Your task to perform on an android device: toggle data saver in the chrome app Image 0: 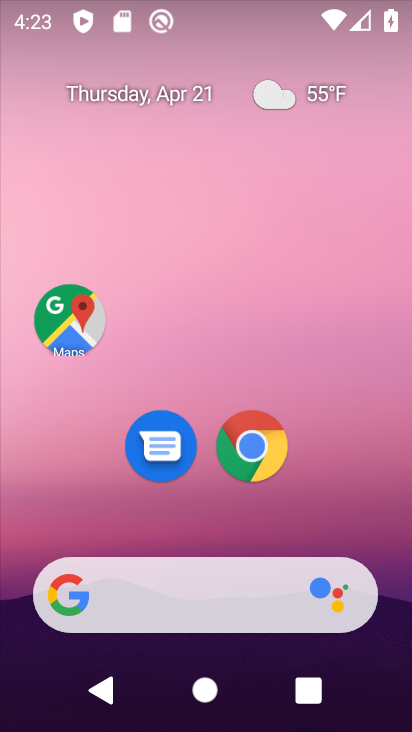
Step 0: click (257, 452)
Your task to perform on an android device: toggle data saver in the chrome app Image 1: 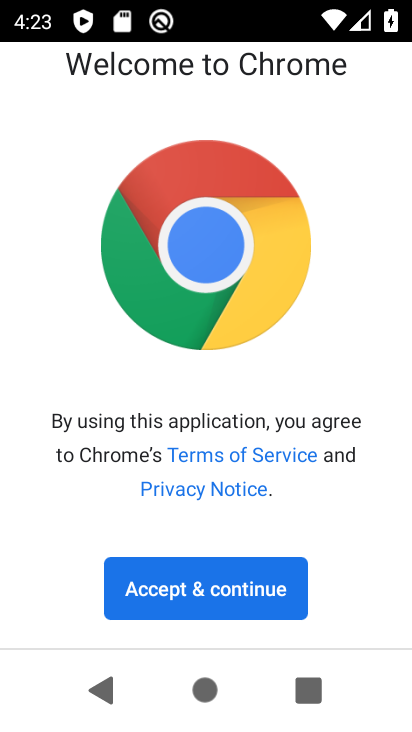
Step 1: click (231, 573)
Your task to perform on an android device: toggle data saver in the chrome app Image 2: 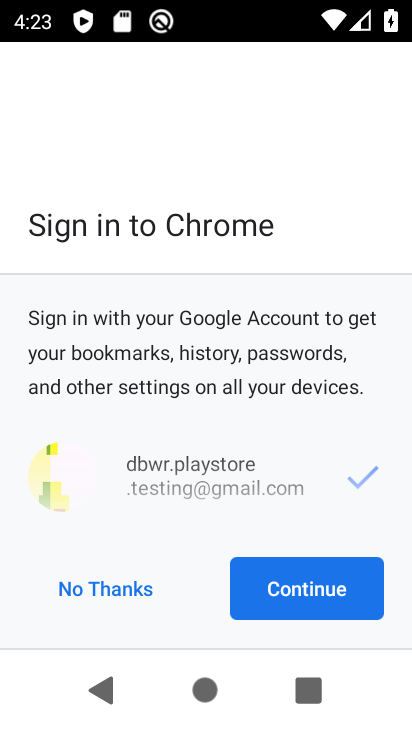
Step 2: click (299, 596)
Your task to perform on an android device: toggle data saver in the chrome app Image 3: 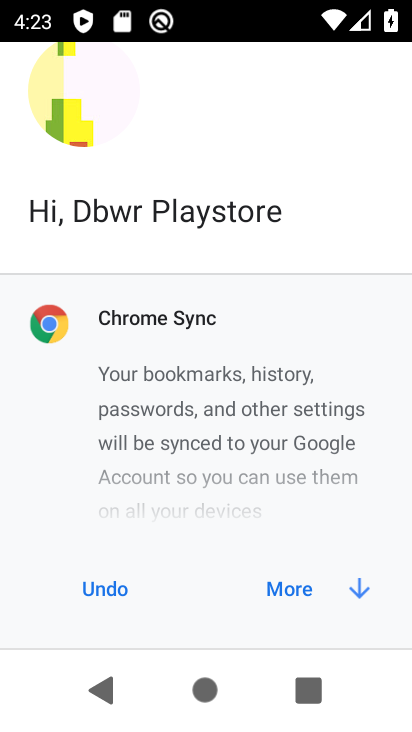
Step 3: click (299, 596)
Your task to perform on an android device: toggle data saver in the chrome app Image 4: 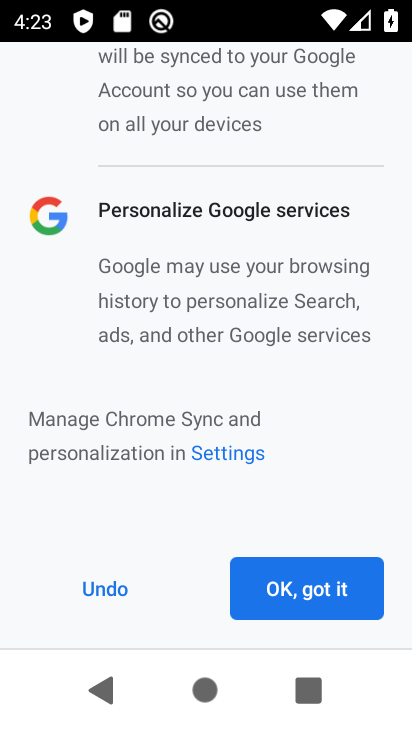
Step 4: click (299, 596)
Your task to perform on an android device: toggle data saver in the chrome app Image 5: 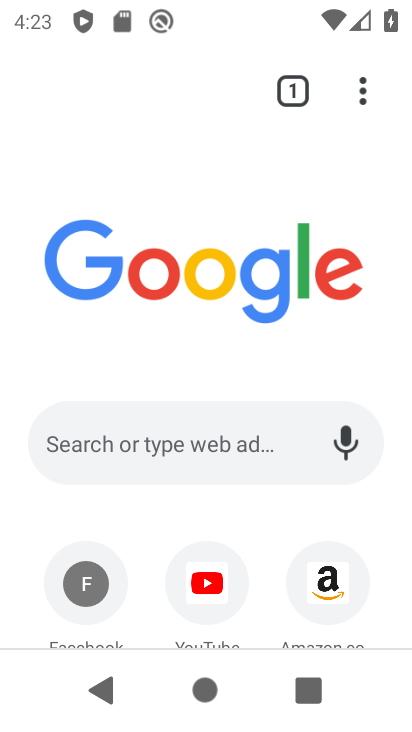
Step 5: click (359, 90)
Your task to perform on an android device: toggle data saver in the chrome app Image 6: 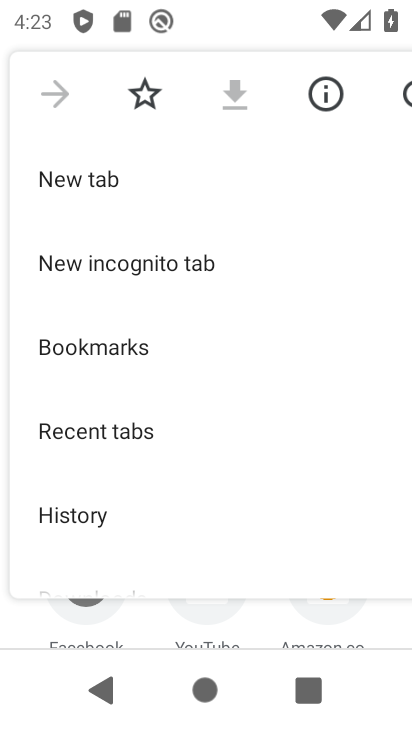
Step 6: drag from (142, 498) to (188, 304)
Your task to perform on an android device: toggle data saver in the chrome app Image 7: 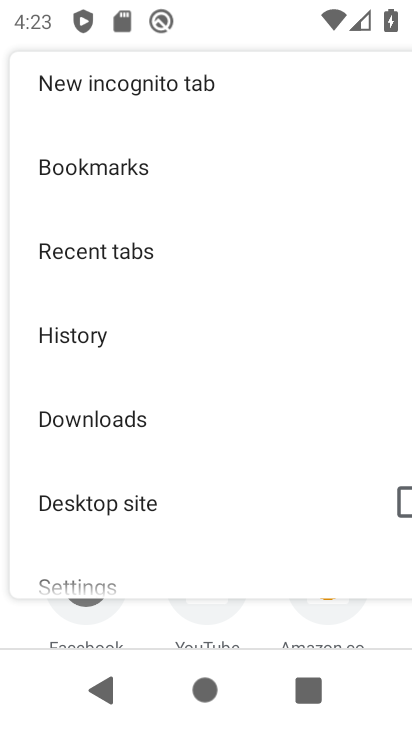
Step 7: drag from (105, 563) to (123, 309)
Your task to perform on an android device: toggle data saver in the chrome app Image 8: 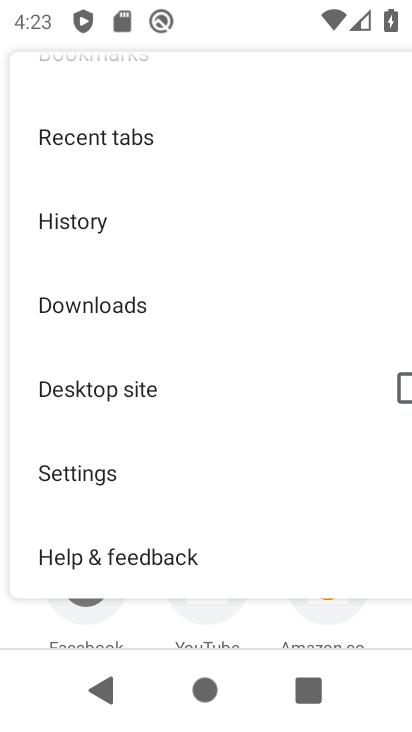
Step 8: click (82, 494)
Your task to perform on an android device: toggle data saver in the chrome app Image 9: 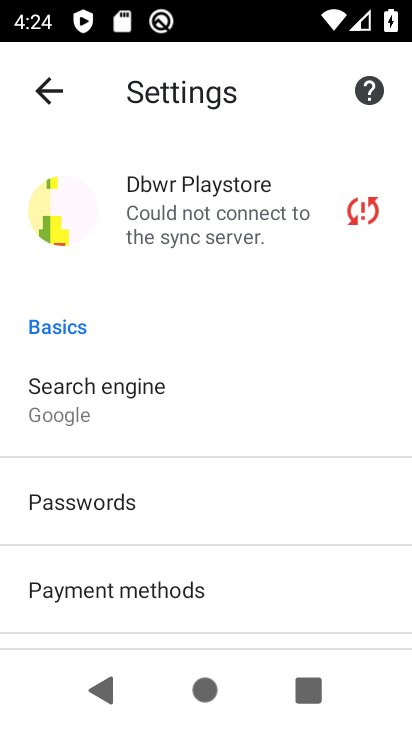
Step 9: drag from (95, 578) to (137, 226)
Your task to perform on an android device: toggle data saver in the chrome app Image 10: 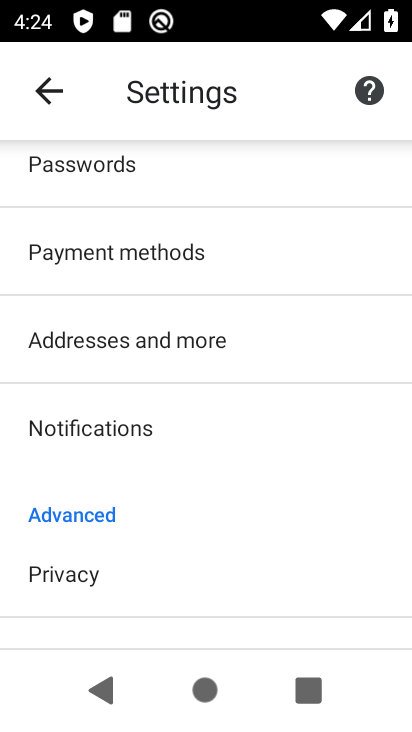
Step 10: drag from (101, 543) to (147, 84)
Your task to perform on an android device: toggle data saver in the chrome app Image 11: 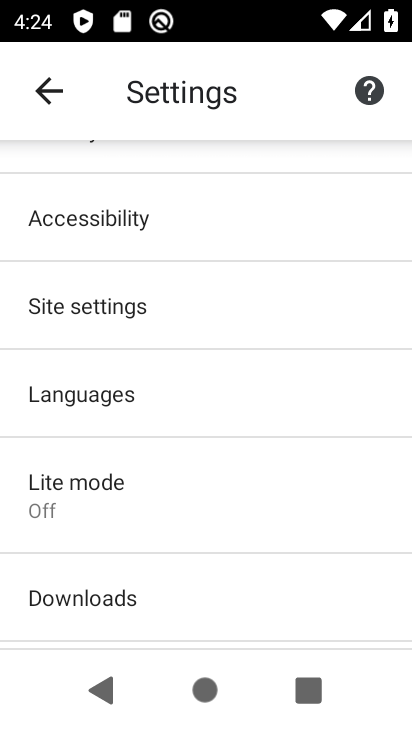
Step 11: click (132, 292)
Your task to perform on an android device: toggle data saver in the chrome app Image 12: 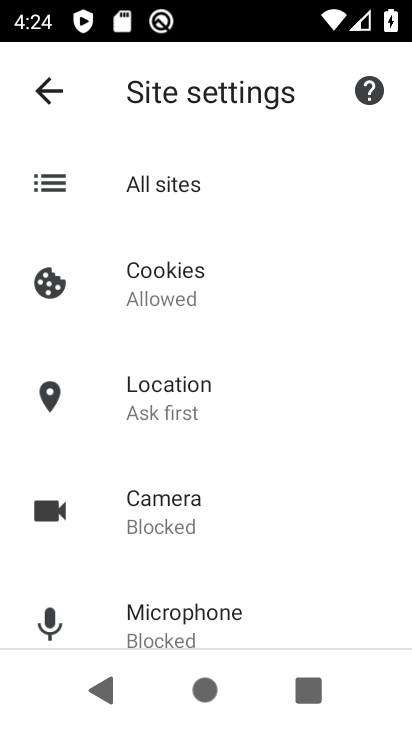
Step 12: click (45, 75)
Your task to perform on an android device: toggle data saver in the chrome app Image 13: 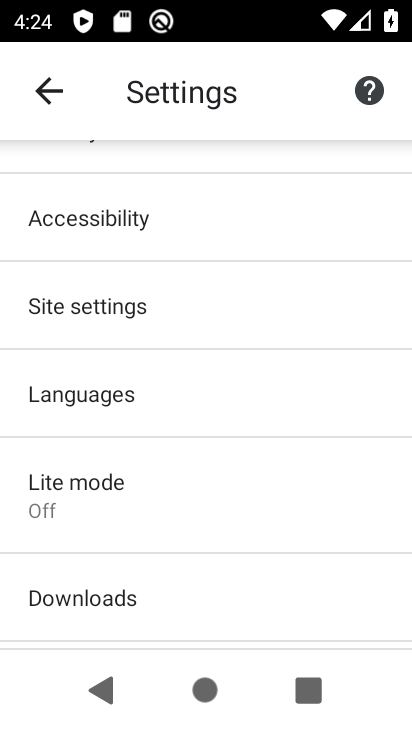
Step 13: drag from (84, 548) to (120, 266)
Your task to perform on an android device: toggle data saver in the chrome app Image 14: 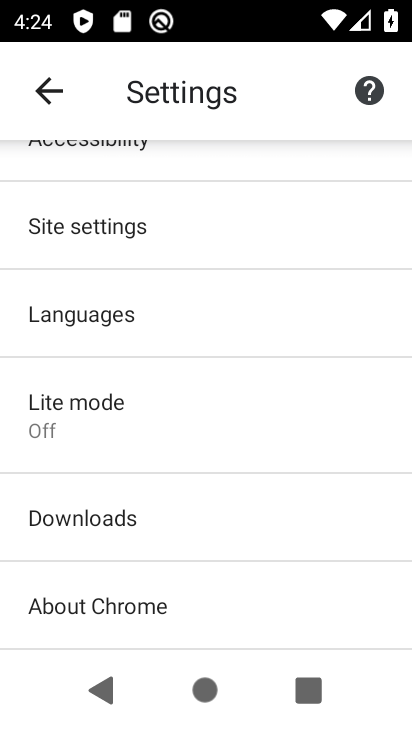
Step 14: click (107, 441)
Your task to perform on an android device: toggle data saver in the chrome app Image 15: 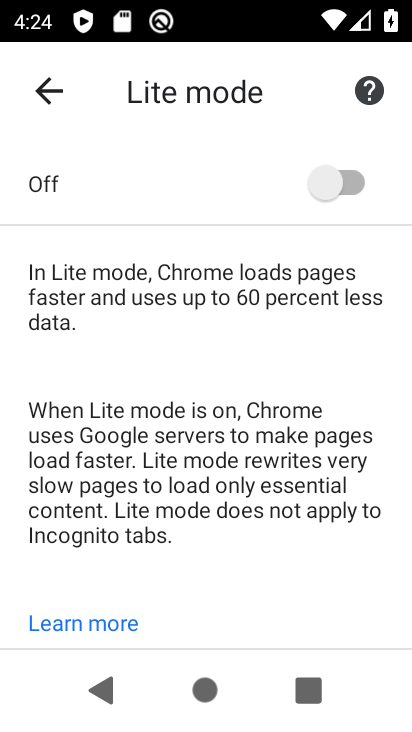
Step 15: click (351, 191)
Your task to perform on an android device: toggle data saver in the chrome app Image 16: 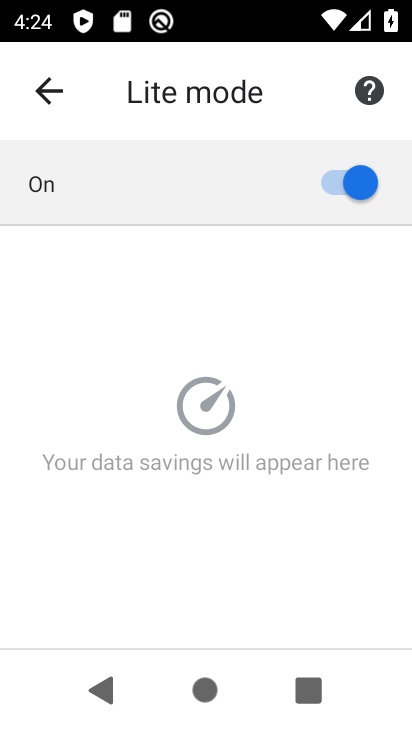
Step 16: click (351, 191)
Your task to perform on an android device: toggle data saver in the chrome app Image 17: 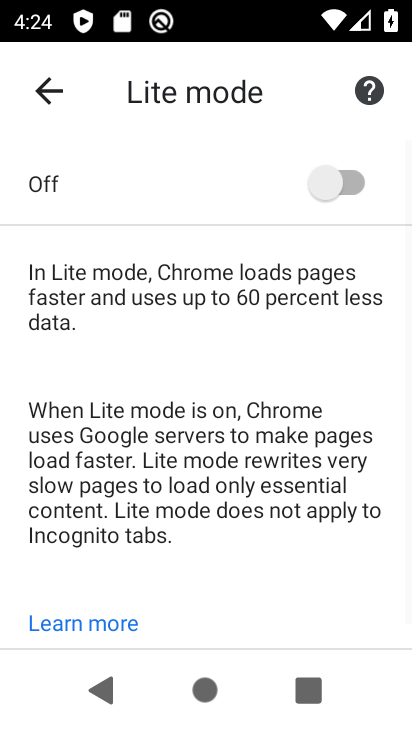
Step 17: click (351, 191)
Your task to perform on an android device: toggle data saver in the chrome app Image 18: 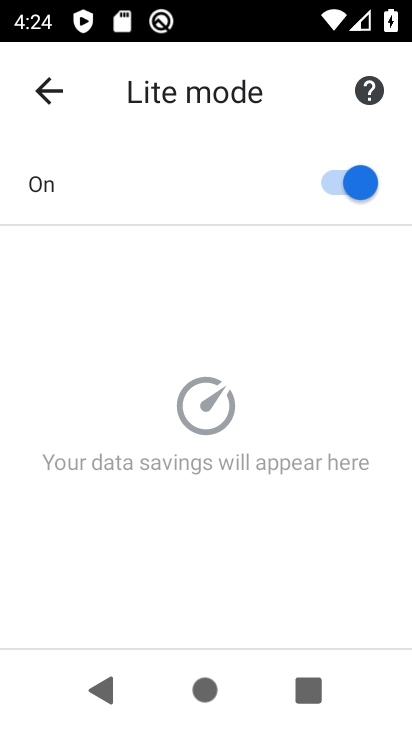
Step 18: task complete